Your task to perform on an android device: Go to ESPN.com Image 0: 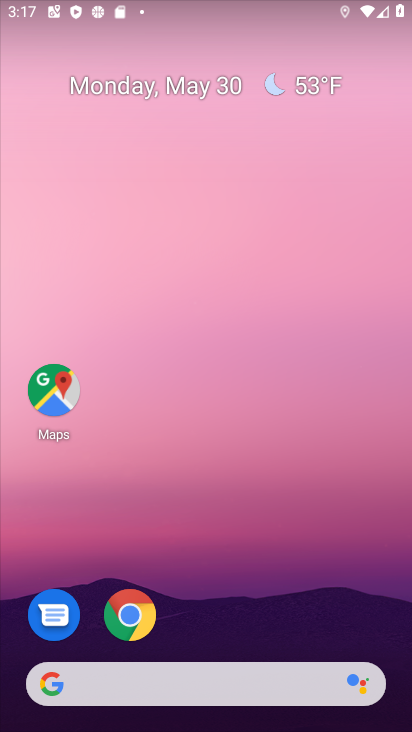
Step 0: click (142, 619)
Your task to perform on an android device: Go to ESPN.com Image 1: 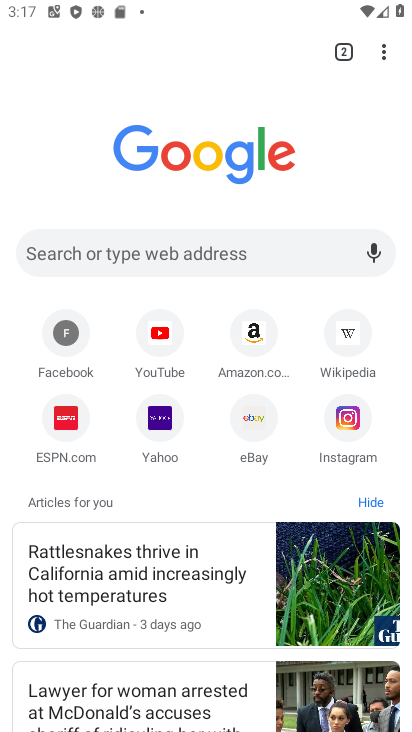
Step 1: click (75, 426)
Your task to perform on an android device: Go to ESPN.com Image 2: 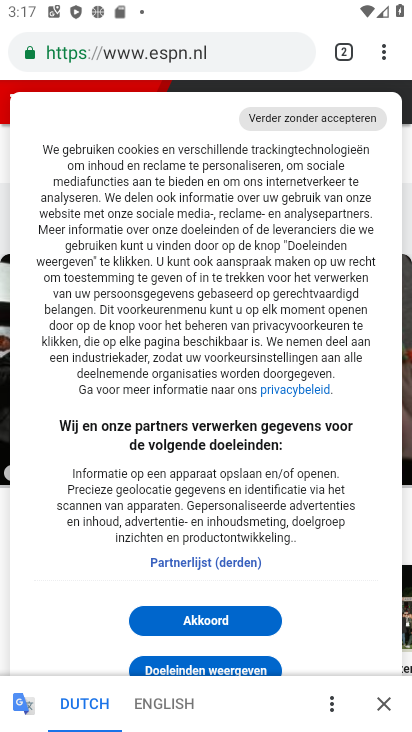
Step 2: task complete